Your task to perform on an android device: delete browsing data in the chrome app Image 0: 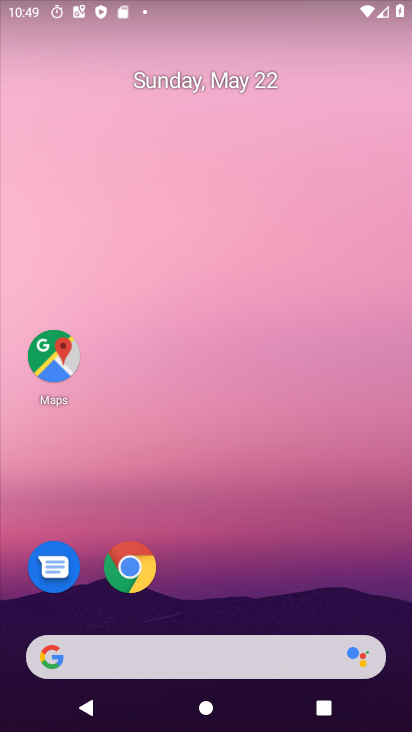
Step 0: drag from (358, 600) to (337, 76)
Your task to perform on an android device: delete browsing data in the chrome app Image 1: 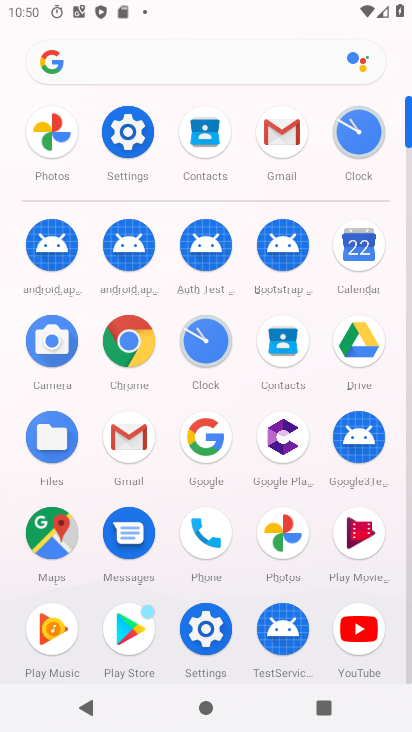
Step 1: click (118, 348)
Your task to perform on an android device: delete browsing data in the chrome app Image 2: 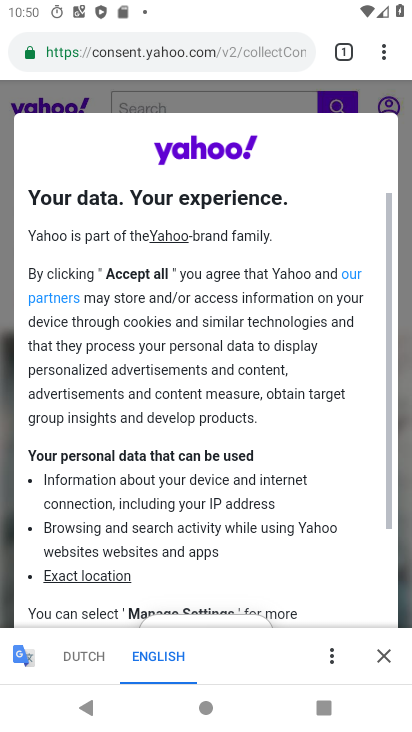
Step 2: drag from (380, 61) to (224, 290)
Your task to perform on an android device: delete browsing data in the chrome app Image 3: 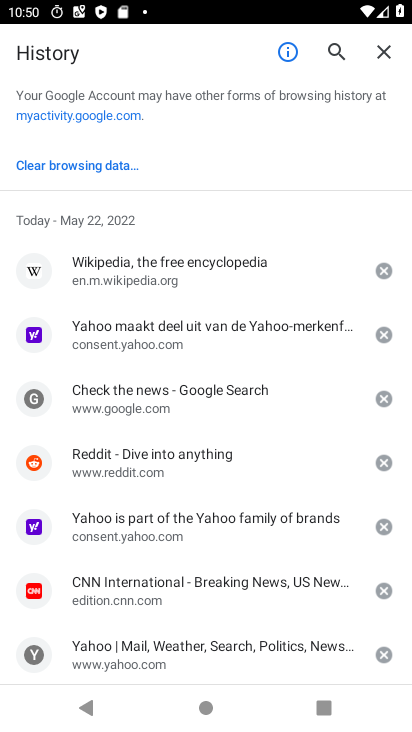
Step 3: click (116, 175)
Your task to perform on an android device: delete browsing data in the chrome app Image 4: 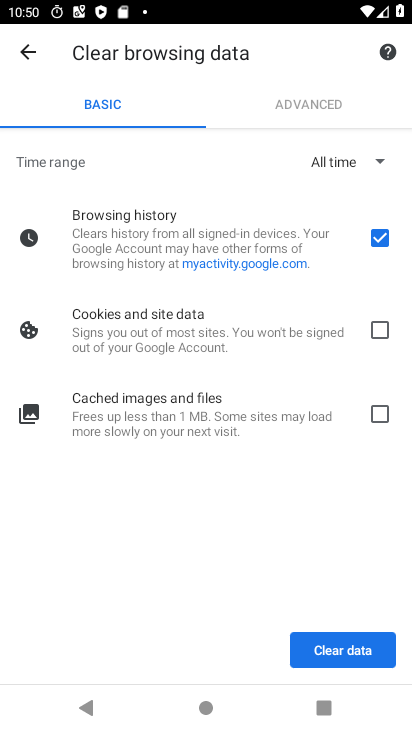
Step 4: click (343, 660)
Your task to perform on an android device: delete browsing data in the chrome app Image 5: 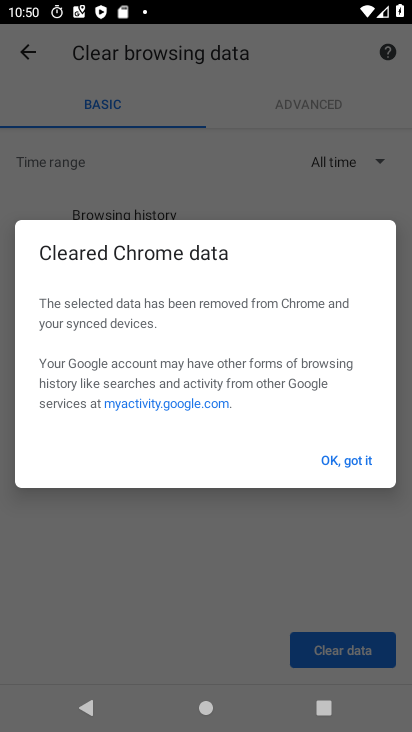
Step 5: click (367, 459)
Your task to perform on an android device: delete browsing data in the chrome app Image 6: 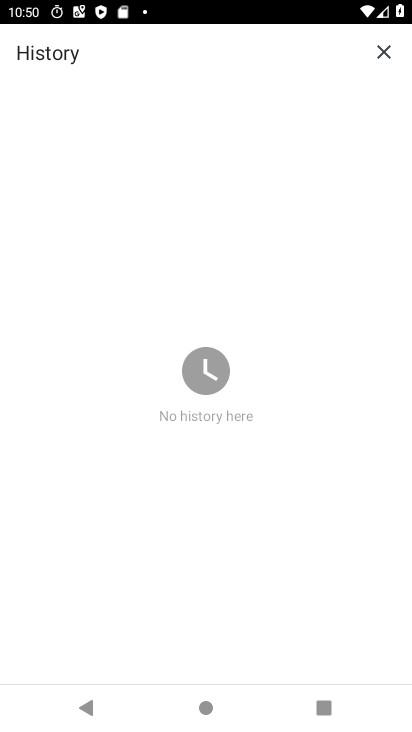
Step 6: task complete